Your task to perform on an android device: Open Youtube and go to the subscriptions tab Image 0: 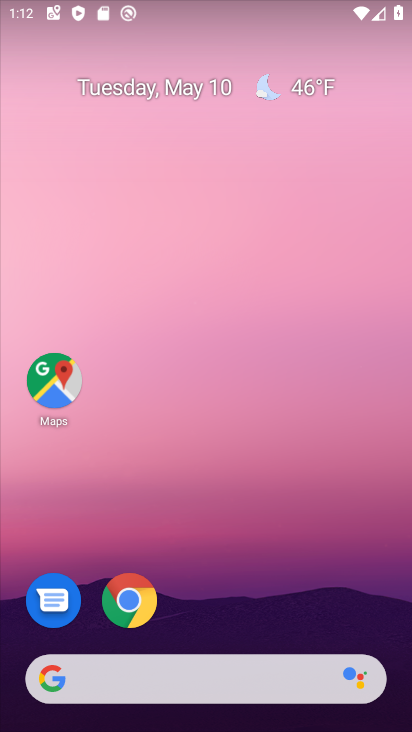
Step 0: press home button
Your task to perform on an android device: Open Youtube and go to the subscriptions tab Image 1: 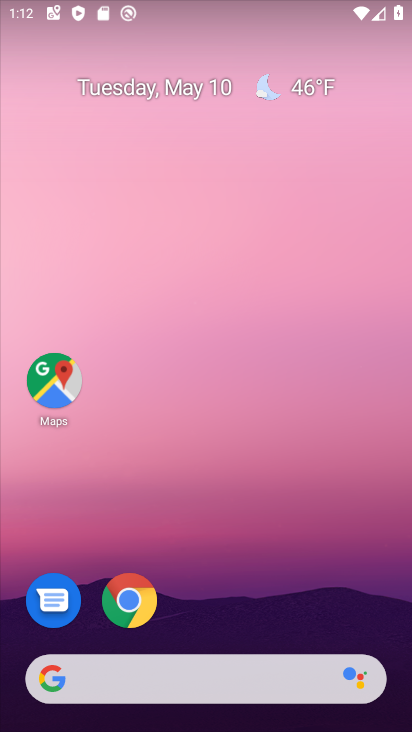
Step 1: drag from (160, 678) to (284, 185)
Your task to perform on an android device: Open Youtube and go to the subscriptions tab Image 2: 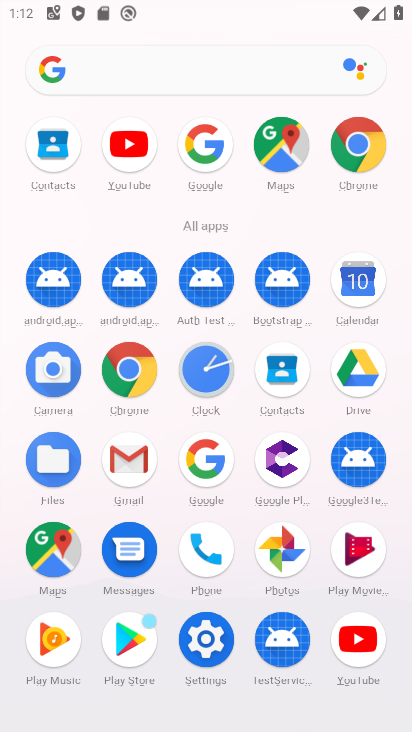
Step 2: click (355, 643)
Your task to perform on an android device: Open Youtube and go to the subscriptions tab Image 3: 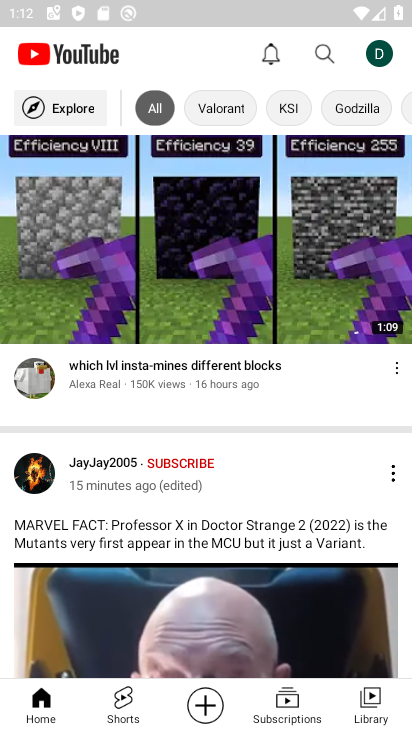
Step 3: click (300, 711)
Your task to perform on an android device: Open Youtube and go to the subscriptions tab Image 4: 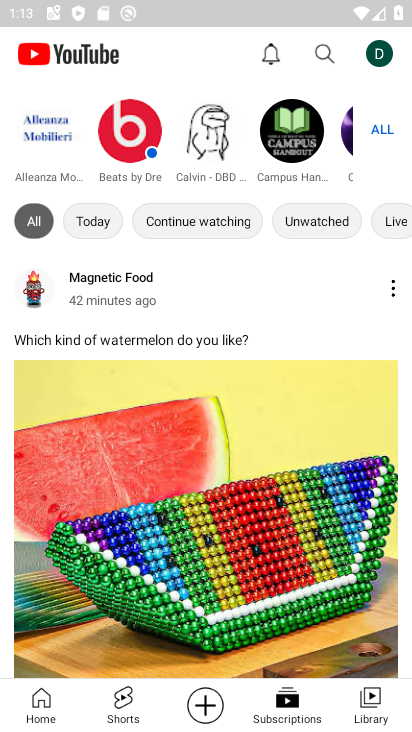
Step 4: task complete